Your task to perform on an android device: Open accessibility settings Image 0: 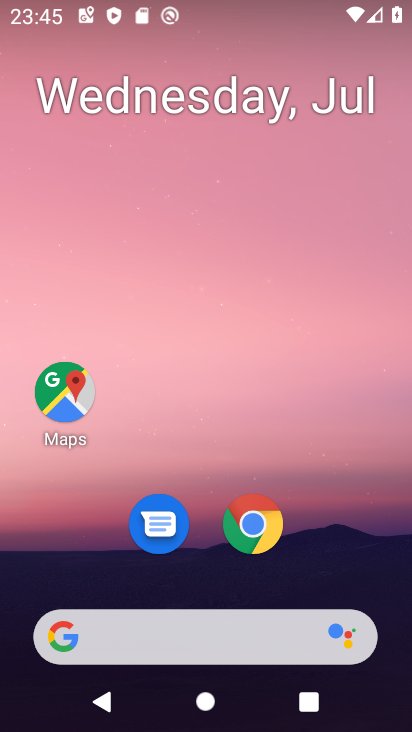
Step 0: drag from (183, 642) to (309, 99)
Your task to perform on an android device: Open accessibility settings Image 1: 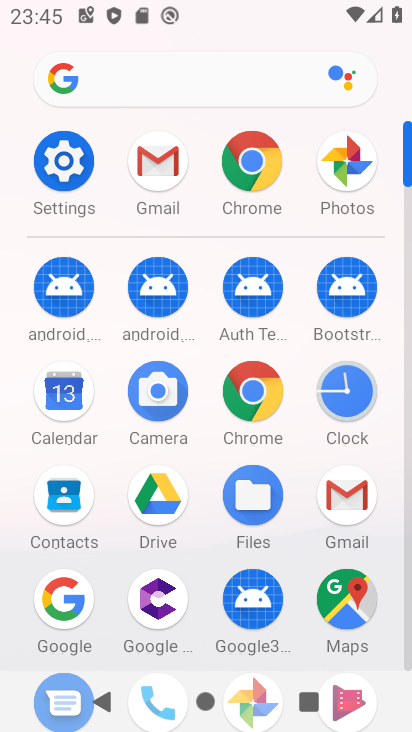
Step 1: click (75, 159)
Your task to perform on an android device: Open accessibility settings Image 2: 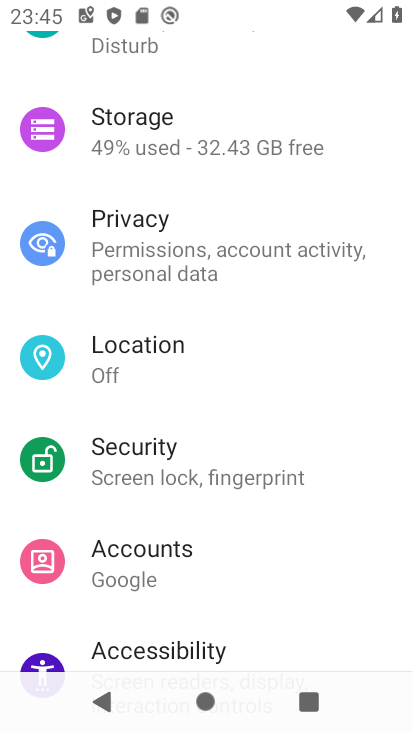
Step 2: drag from (192, 623) to (234, 280)
Your task to perform on an android device: Open accessibility settings Image 3: 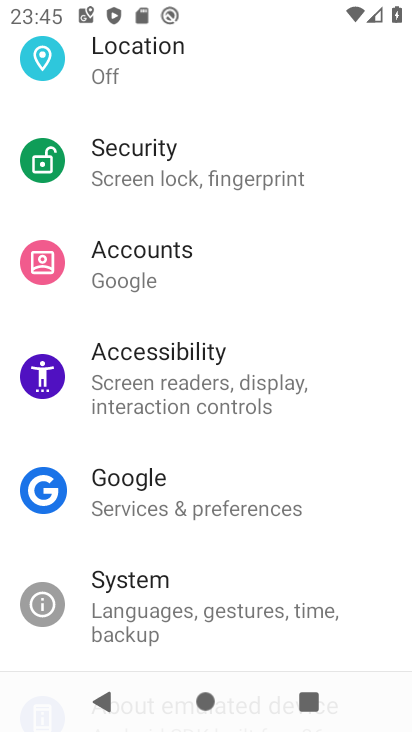
Step 3: click (172, 381)
Your task to perform on an android device: Open accessibility settings Image 4: 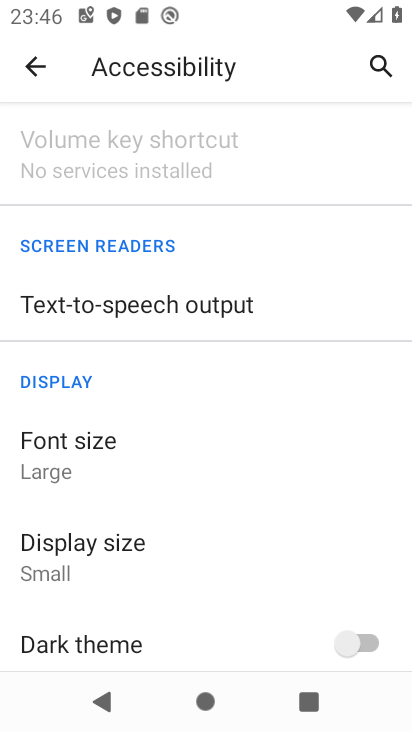
Step 4: task complete